Your task to perform on an android device: Open the stopwatch Image 0: 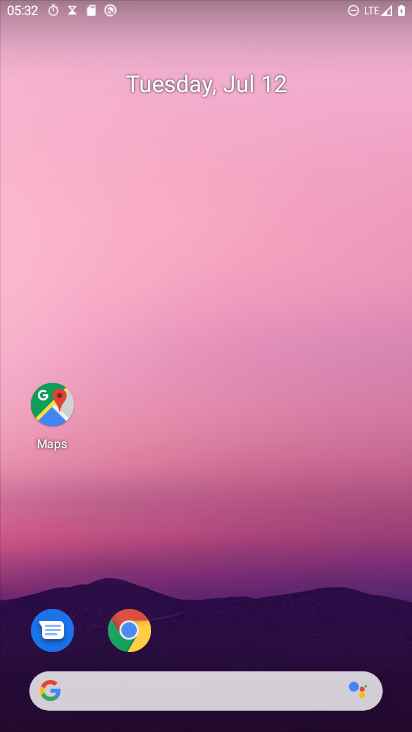
Step 0: drag from (330, 688) to (327, 131)
Your task to perform on an android device: Open the stopwatch Image 1: 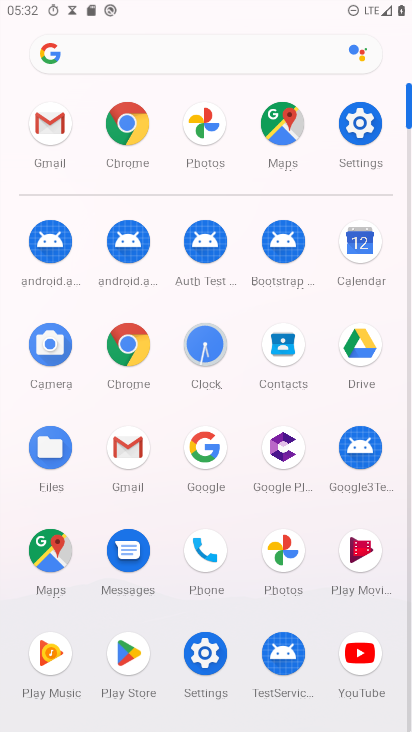
Step 1: click (201, 347)
Your task to perform on an android device: Open the stopwatch Image 2: 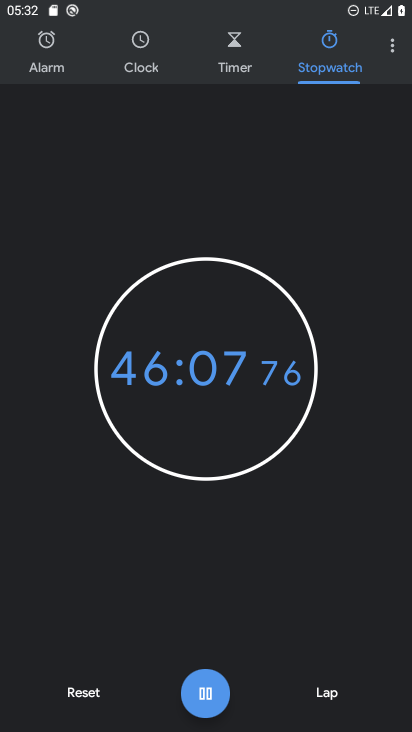
Step 2: task complete